Your task to perform on an android device: turn on airplane mode Image 0: 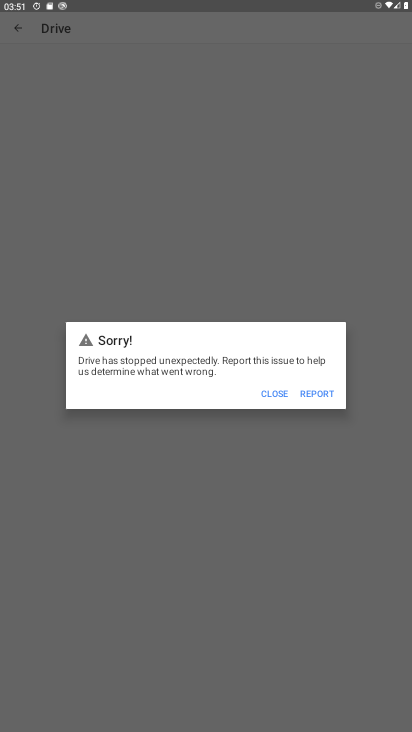
Step 0: press home button
Your task to perform on an android device: turn on airplane mode Image 1: 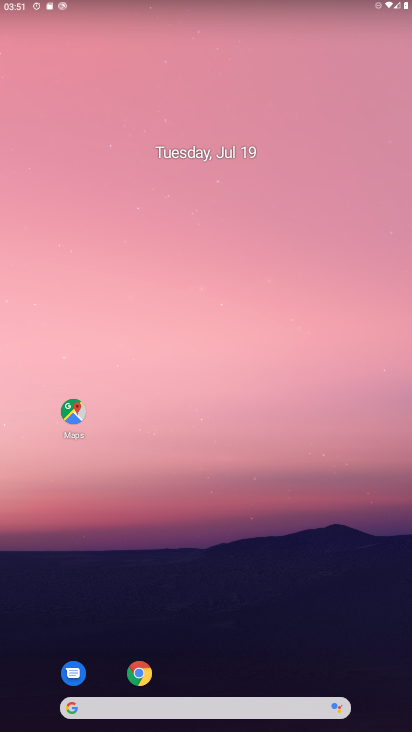
Step 1: drag from (218, 648) to (271, 5)
Your task to perform on an android device: turn on airplane mode Image 2: 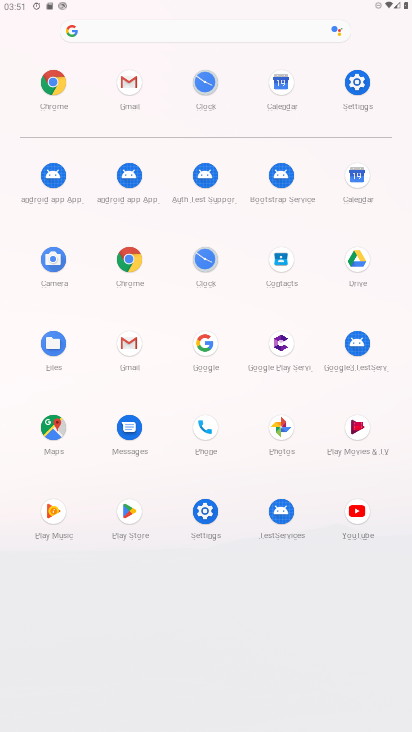
Step 2: click (185, 515)
Your task to perform on an android device: turn on airplane mode Image 3: 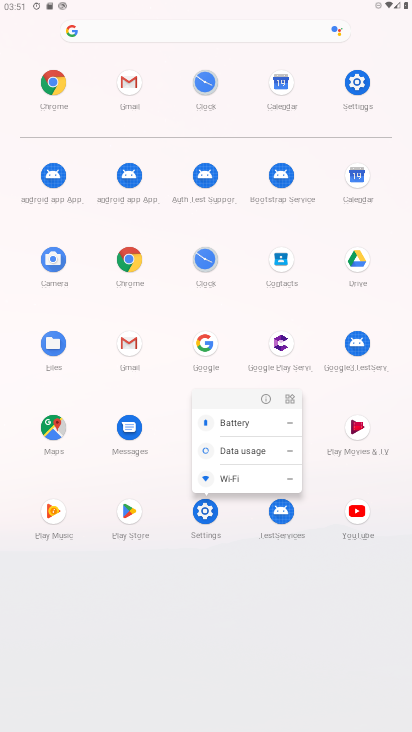
Step 3: click (192, 523)
Your task to perform on an android device: turn on airplane mode Image 4: 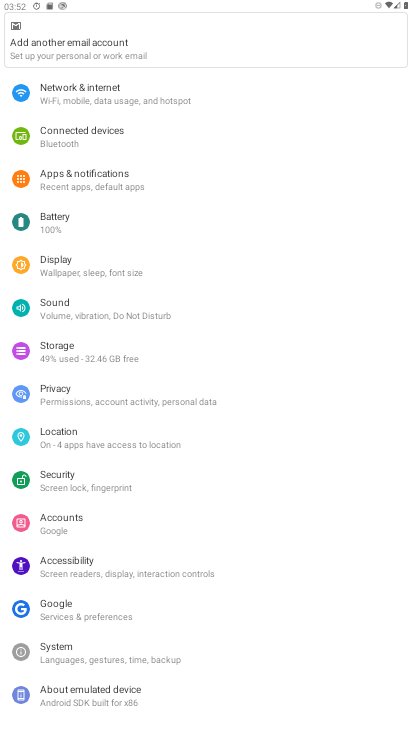
Step 4: click (111, 91)
Your task to perform on an android device: turn on airplane mode Image 5: 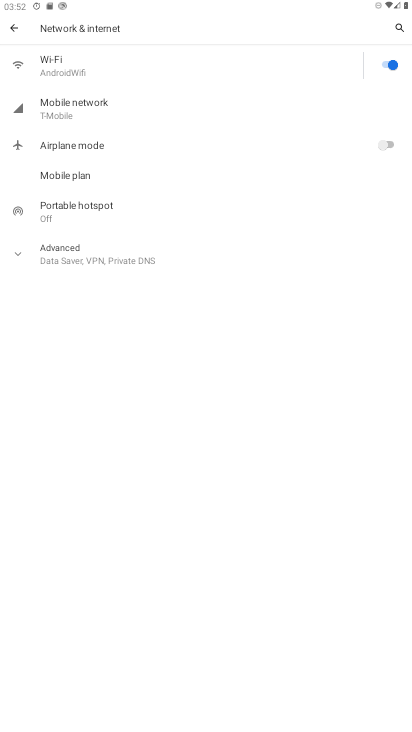
Step 5: click (397, 147)
Your task to perform on an android device: turn on airplane mode Image 6: 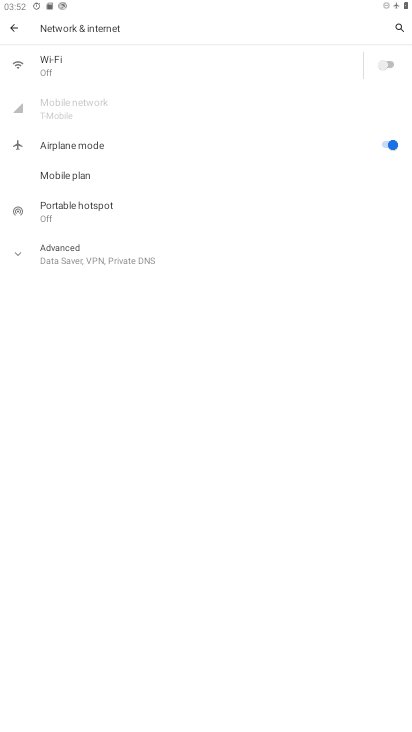
Step 6: task complete